Your task to perform on an android device: add a label to a message in the gmail app Image 0: 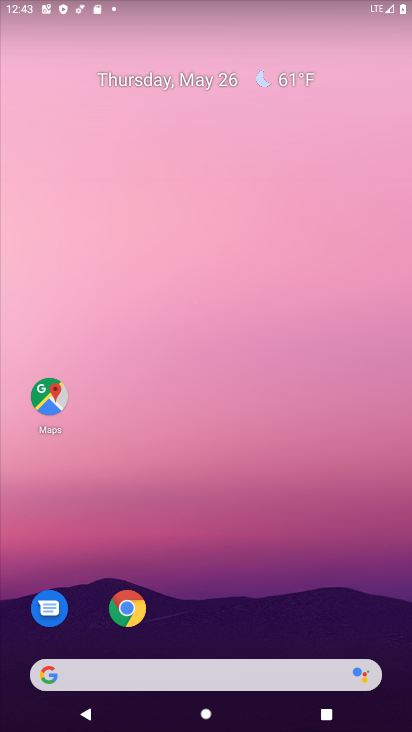
Step 0: drag from (382, 604) to (263, 254)
Your task to perform on an android device: add a label to a message in the gmail app Image 1: 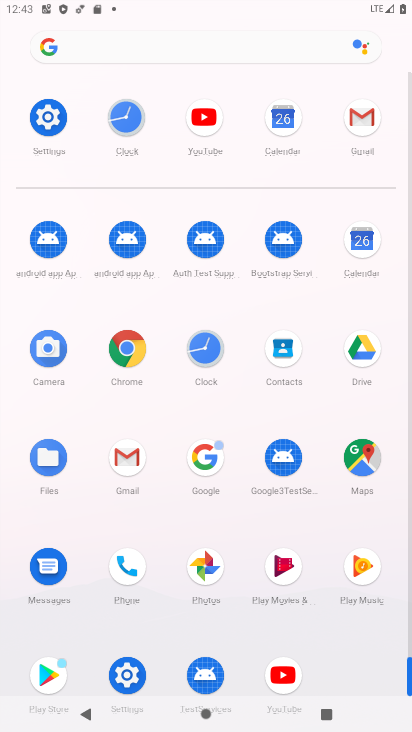
Step 1: click (126, 457)
Your task to perform on an android device: add a label to a message in the gmail app Image 2: 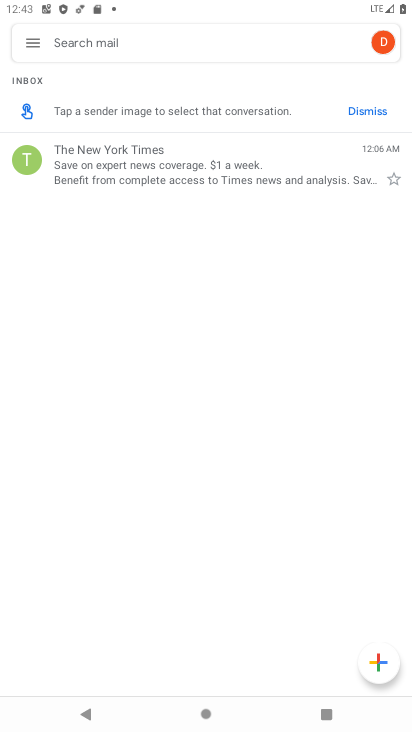
Step 2: click (30, 44)
Your task to perform on an android device: add a label to a message in the gmail app Image 3: 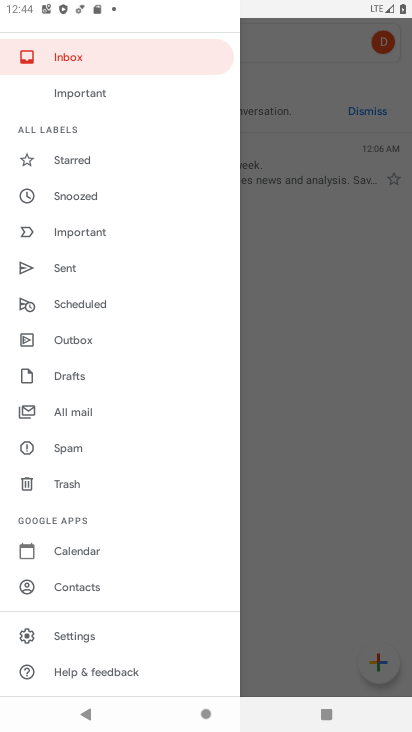
Step 3: click (91, 402)
Your task to perform on an android device: add a label to a message in the gmail app Image 4: 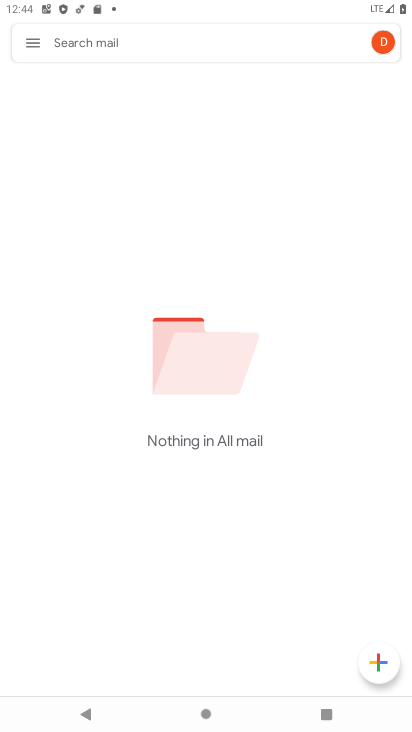
Step 4: task complete